Your task to perform on an android device: allow cookies in the chrome app Image 0: 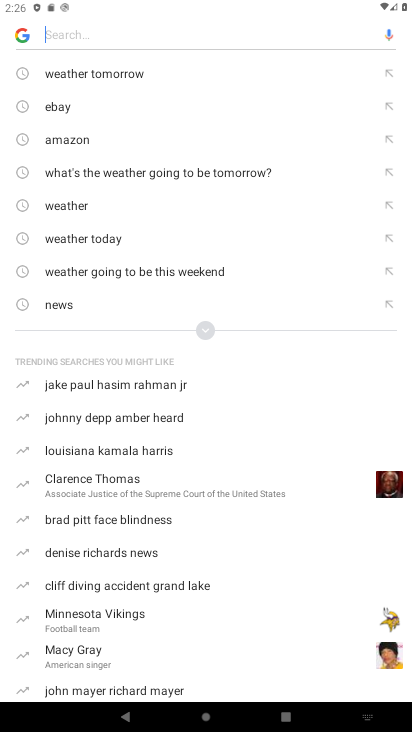
Step 0: press home button
Your task to perform on an android device: allow cookies in the chrome app Image 1: 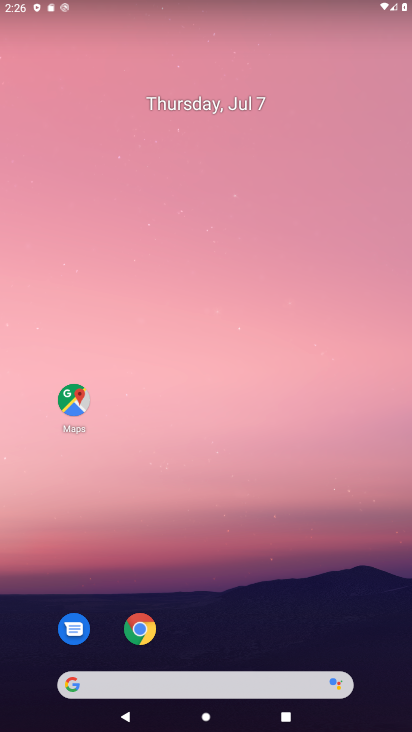
Step 1: click (139, 625)
Your task to perform on an android device: allow cookies in the chrome app Image 2: 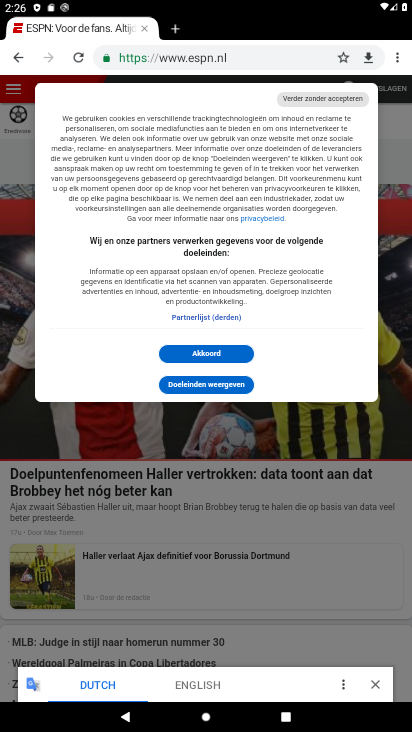
Step 2: click (393, 59)
Your task to perform on an android device: allow cookies in the chrome app Image 3: 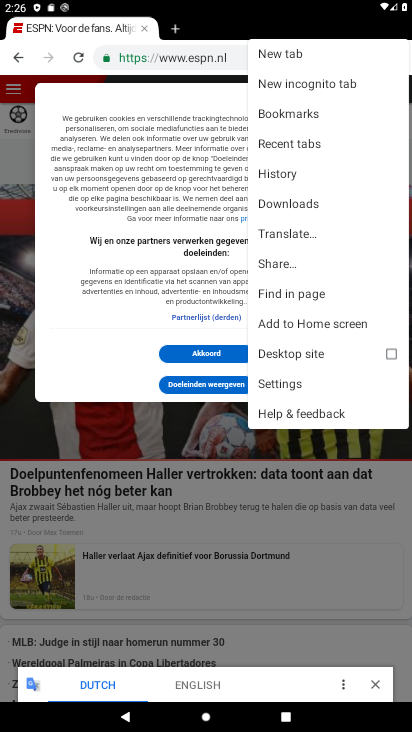
Step 3: click (272, 378)
Your task to perform on an android device: allow cookies in the chrome app Image 4: 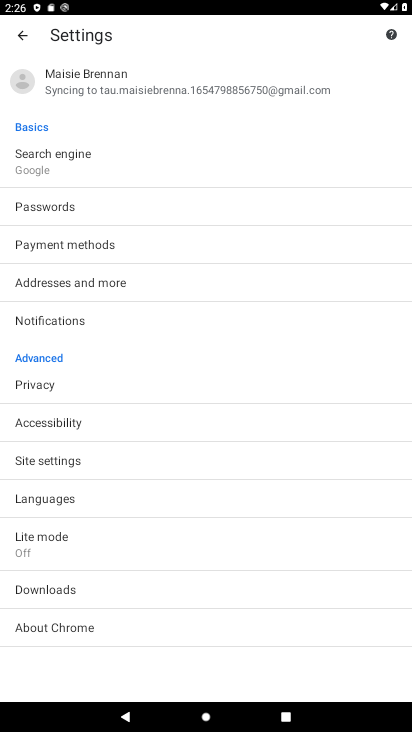
Step 4: click (118, 462)
Your task to perform on an android device: allow cookies in the chrome app Image 5: 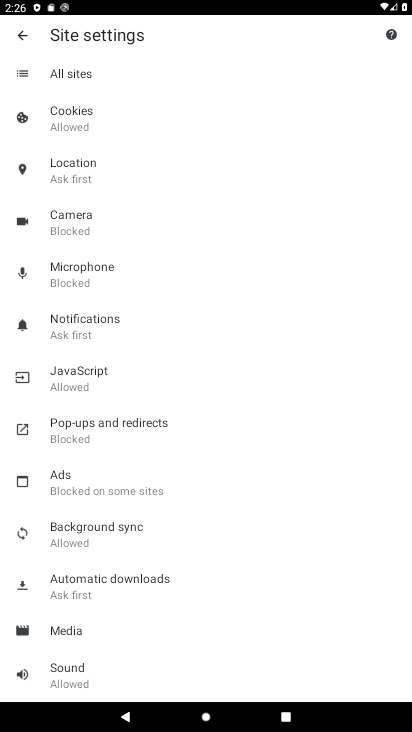
Step 5: click (103, 129)
Your task to perform on an android device: allow cookies in the chrome app Image 6: 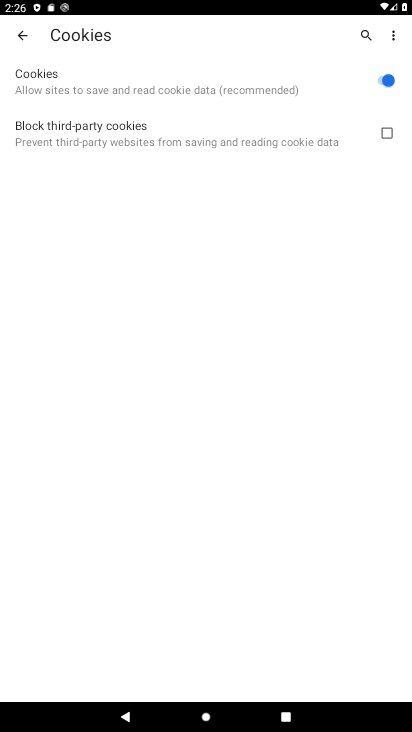
Step 6: task complete